Your task to perform on an android device: Is it going to rain this weekend? Image 0: 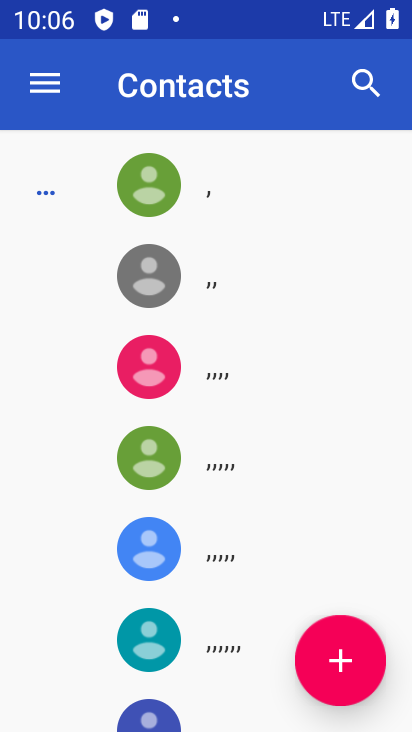
Step 0: press home button
Your task to perform on an android device: Is it going to rain this weekend? Image 1: 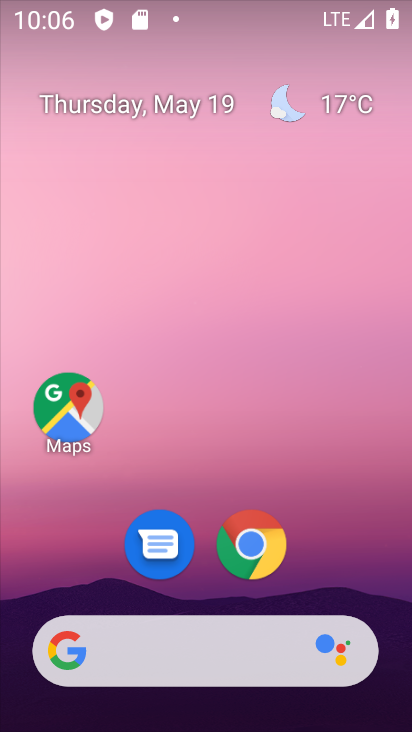
Step 1: drag from (228, 710) to (260, 98)
Your task to perform on an android device: Is it going to rain this weekend? Image 2: 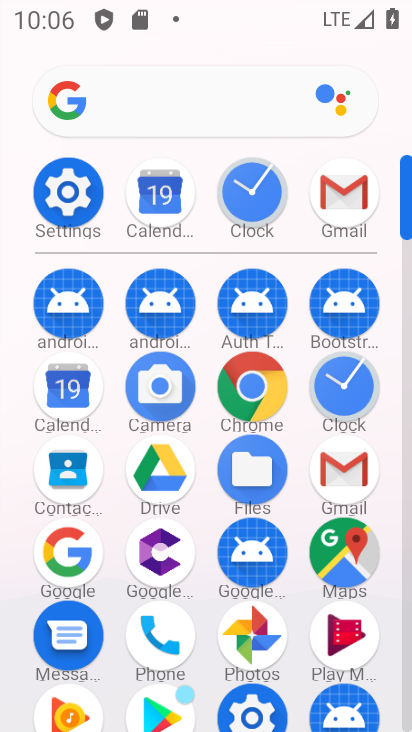
Step 2: click (188, 122)
Your task to perform on an android device: Is it going to rain this weekend? Image 3: 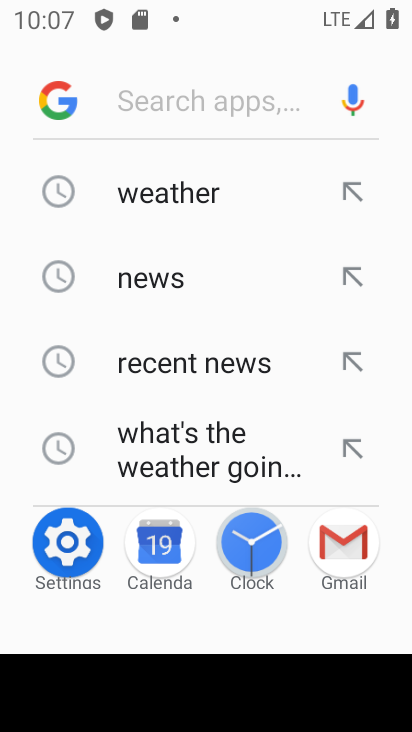
Step 3: type " Check the weather"
Your task to perform on an android device: Is it going to rain this weekend? Image 4: 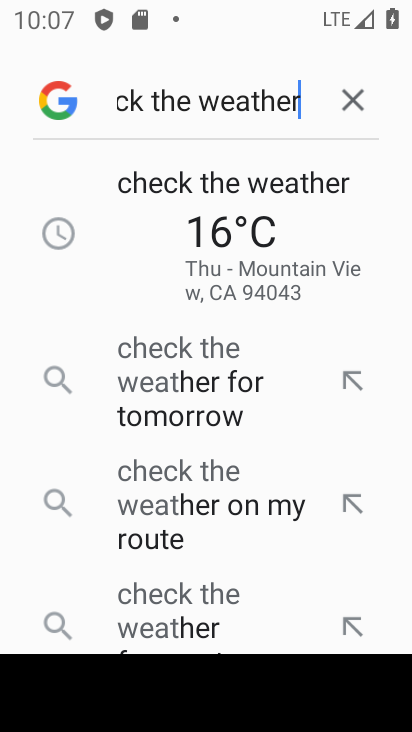
Step 4: type ""
Your task to perform on an android device: Is it going to rain this weekend? Image 5: 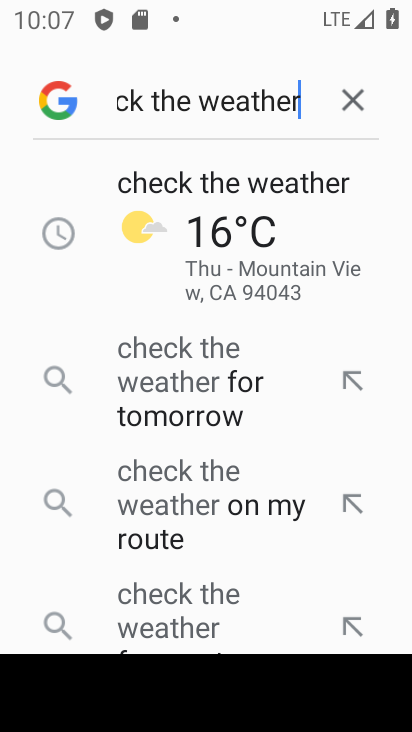
Step 5: click (201, 190)
Your task to perform on an android device: Is it going to rain this weekend? Image 6: 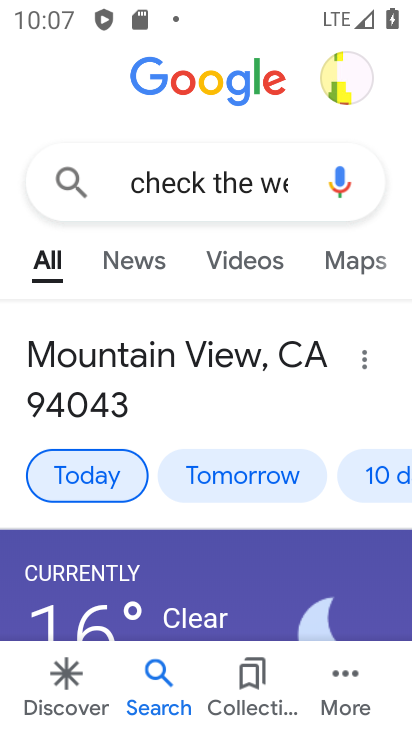
Step 6: task complete